Your task to perform on an android device: Go to network settings Image 0: 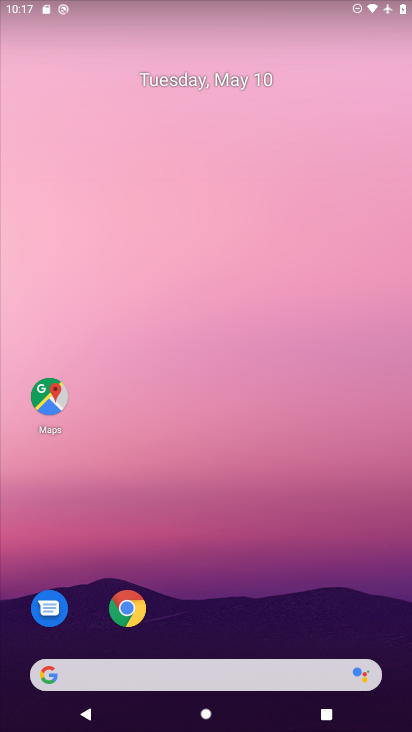
Step 0: drag from (257, 570) to (259, 197)
Your task to perform on an android device: Go to network settings Image 1: 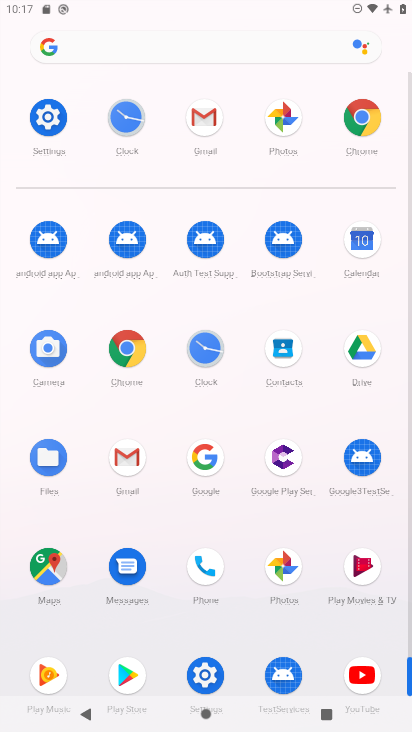
Step 1: click (45, 116)
Your task to perform on an android device: Go to network settings Image 2: 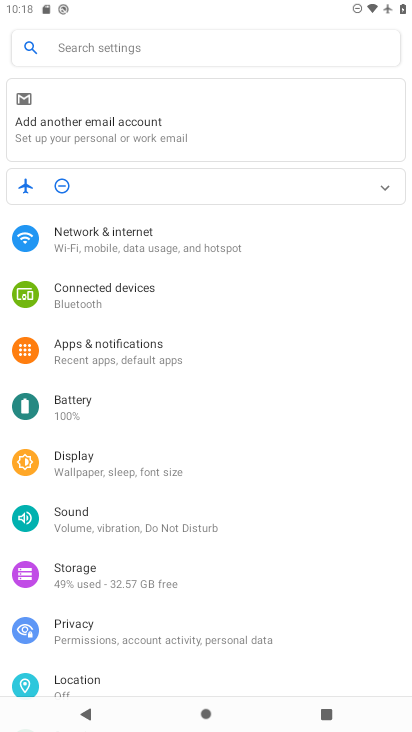
Step 2: click (146, 230)
Your task to perform on an android device: Go to network settings Image 3: 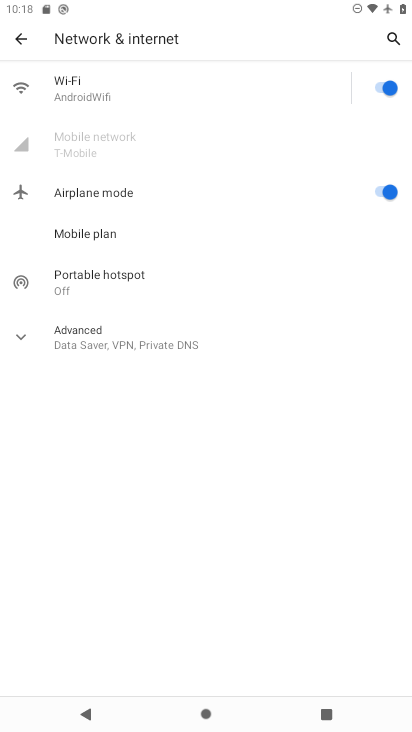
Step 3: task complete